Your task to perform on an android device: Toggle the flashlight Image 0: 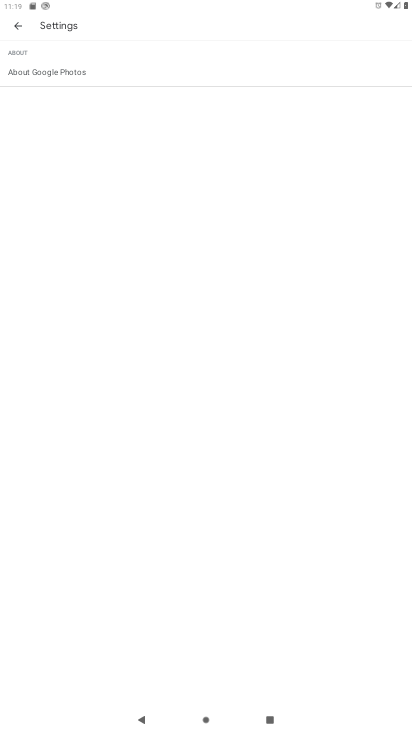
Step 0: press home button
Your task to perform on an android device: Toggle the flashlight Image 1: 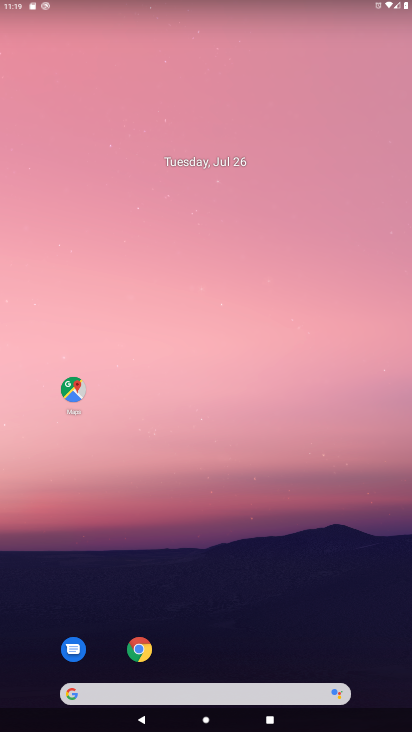
Step 1: drag from (221, 625) to (145, 19)
Your task to perform on an android device: Toggle the flashlight Image 2: 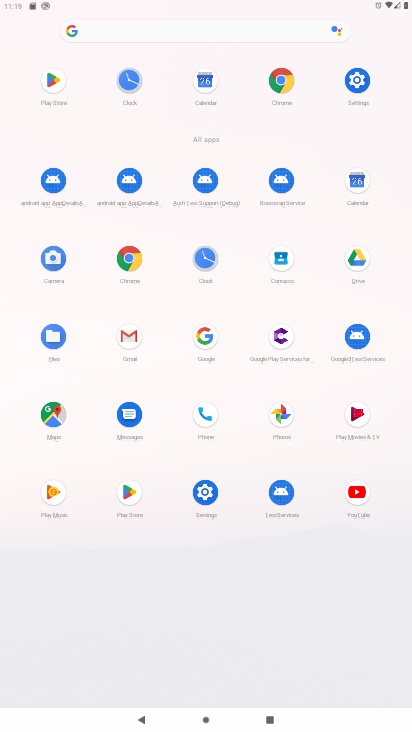
Step 2: click (206, 506)
Your task to perform on an android device: Toggle the flashlight Image 3: 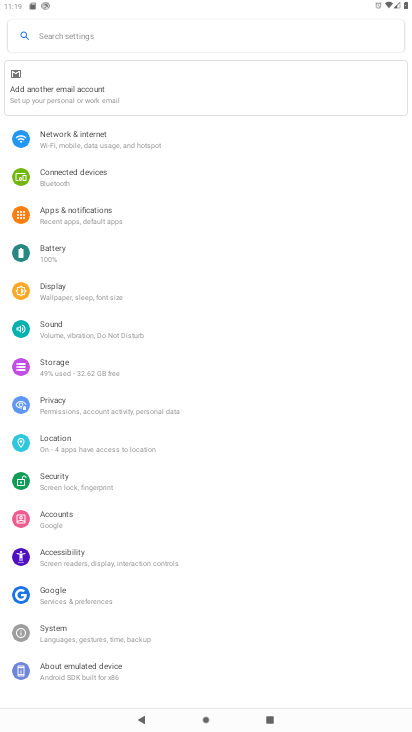
Step 3: click (162, 35)
Your task to perform on an android device: Toggle the flashlight Image 4: 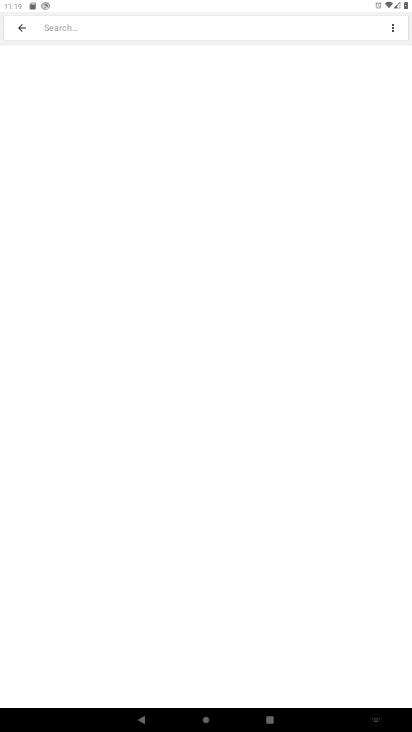
Step 4: type "flashlight"
Your task to perform on an android device: Toggle the flashlight Image 5: 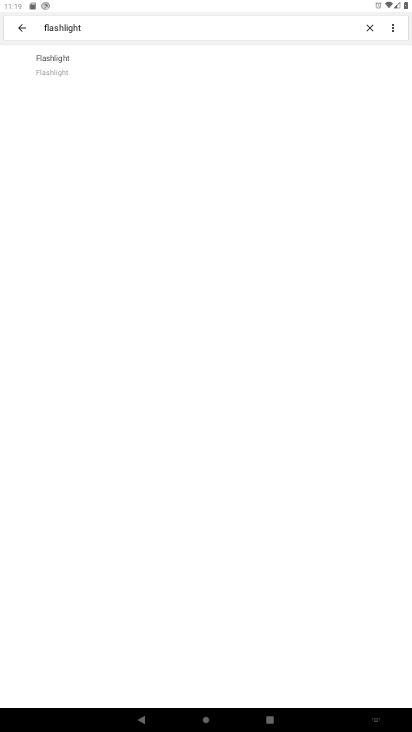
Step 5: click (63, 66)
Your task to perform on an android device: Toggle the flashlight Image 6: 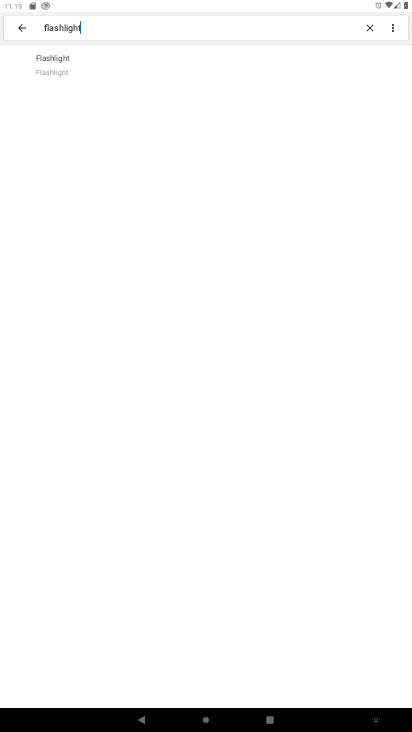
Step 6: click (64, 62)
Your task to perform on an android device: Toggle the flashlight Image 7: 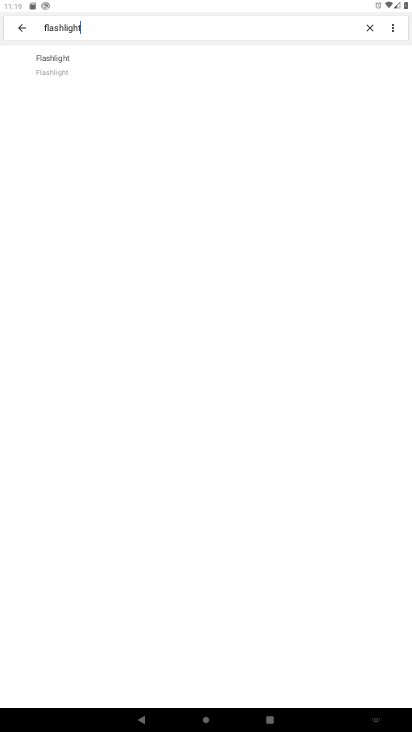
Step 7: click (62, 62)
Your task to perform on an android device: Toggle the flashlight Image 8: 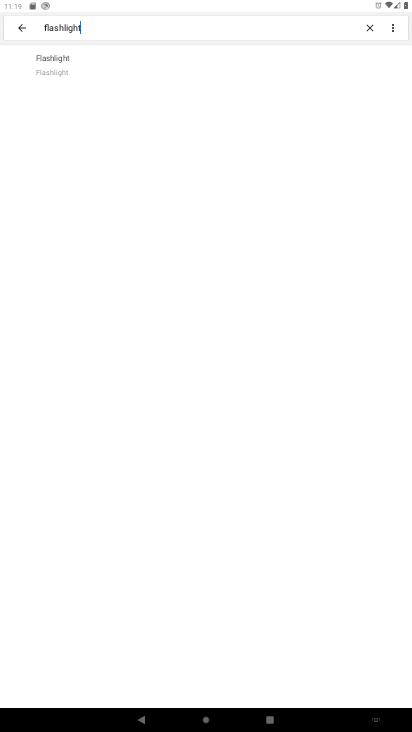
Step 8: task complete